Your task to perform on an android device: search for starred emails in the gmail app Image 0: 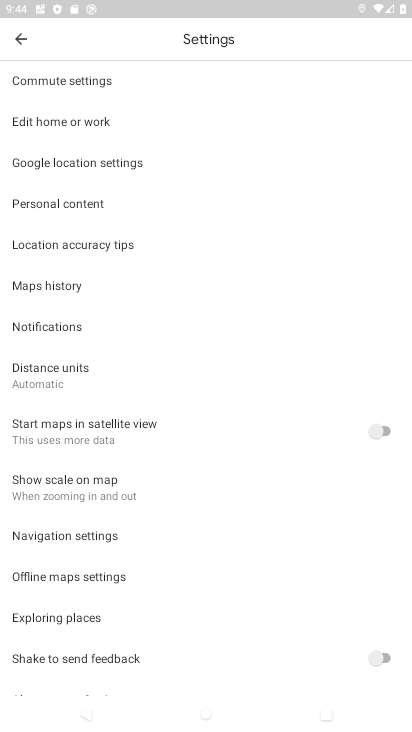
Step 0: task complete